Your task to perform on an android device: What is the news today? Image 0: 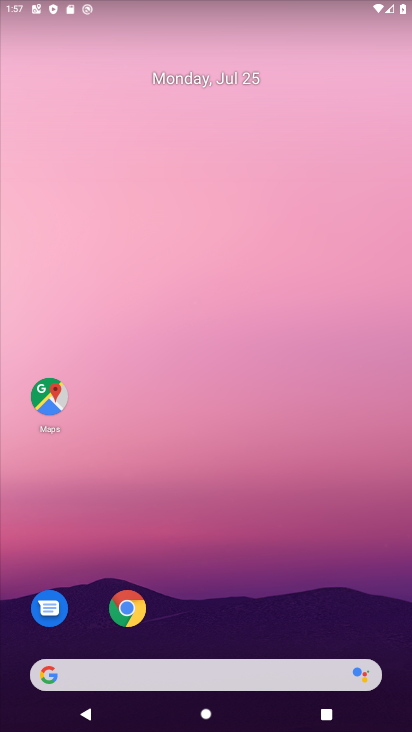
Step 0: click (248, 677)
Your task to perform on an android device: What is the news today? Image 1: 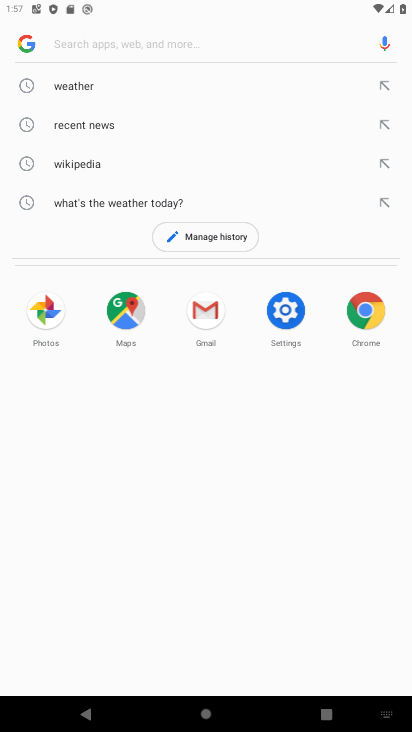
Step 1: type "What is the news today?"
Your task to perform on an android device: What is the news today? Image 2: 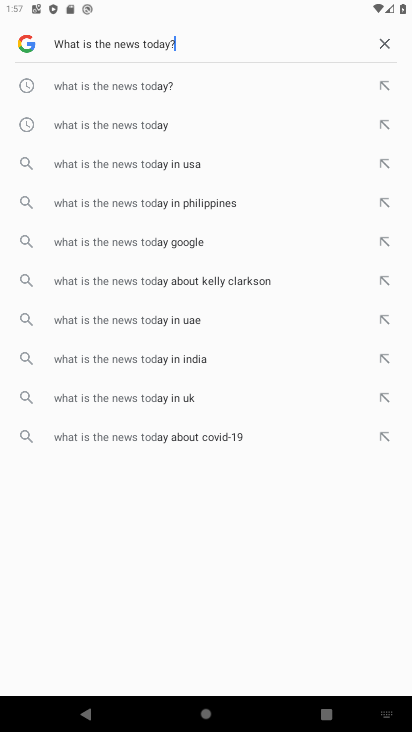
Step 2: press enter
Your task to perform on an android device: What is the news today? Image 3: 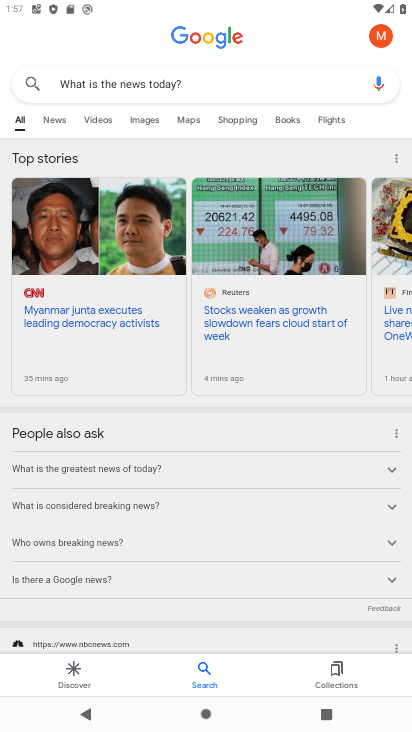
Step 3: task complete